Your task to perform on an android device: change the clock display to digital Image 0: 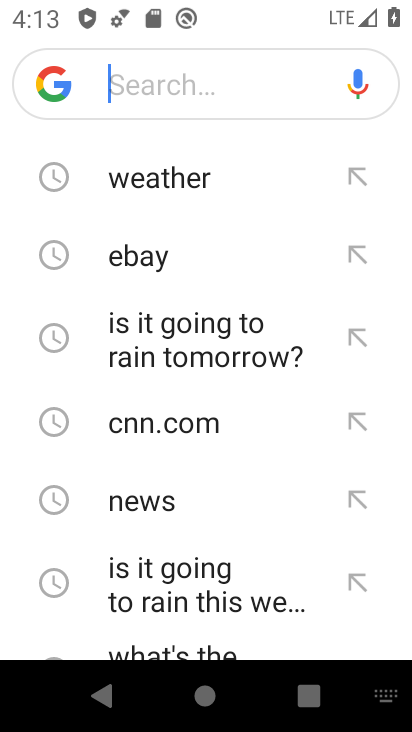
Step 0: press back button
Your task to perform on an android device: change the clock display to digital Image 1: 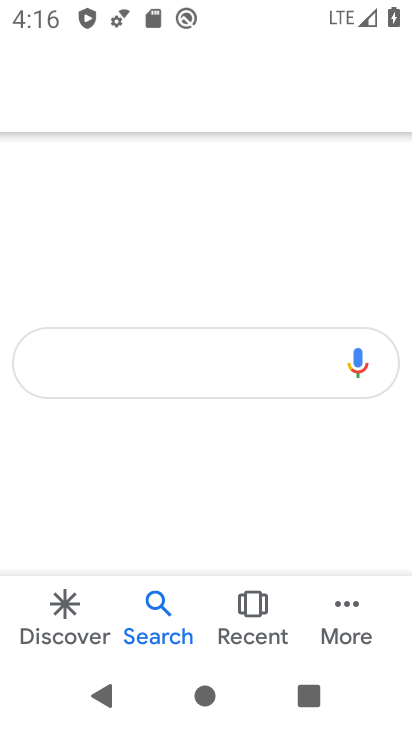
Step 1: press back button
Your task to perform on an android device: change the clock display to digital Image 2: 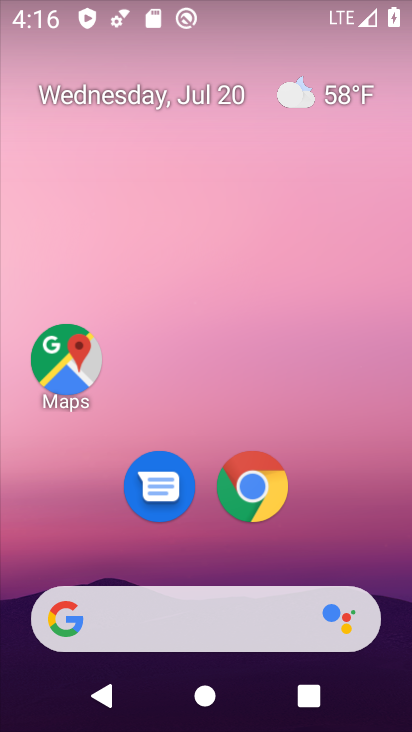
Step 2: drag from (160, 544) to (219, 0)
Your task to perform on an android device: change the clock display to digital Image 3: 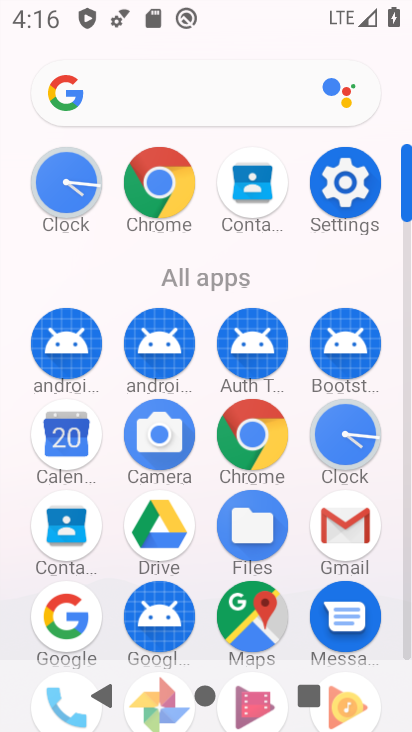
Step 3: click (341, 436)
Your task to perform on an android device: change the clock display to digital Image 4: 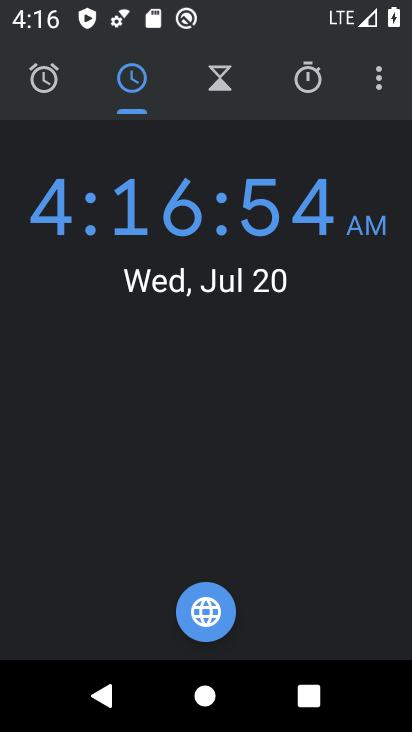
Step 4: click (380, 70)
Your task to perform on an android device: change the clock display to digital Image 5: 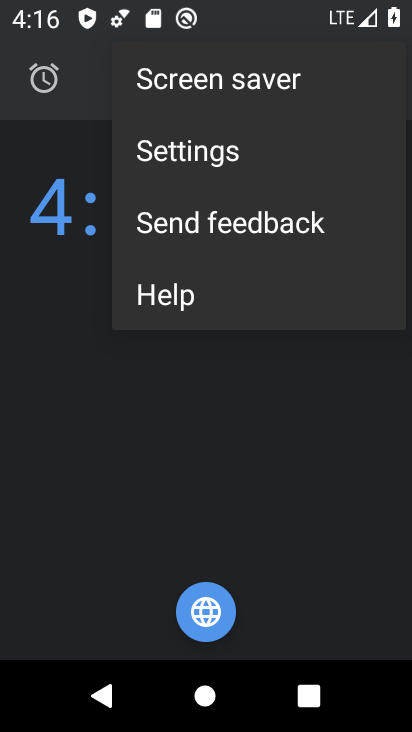
Step 5: click (242, 153)
Your task to perform on an android device: change the clock display to digital Image 6: 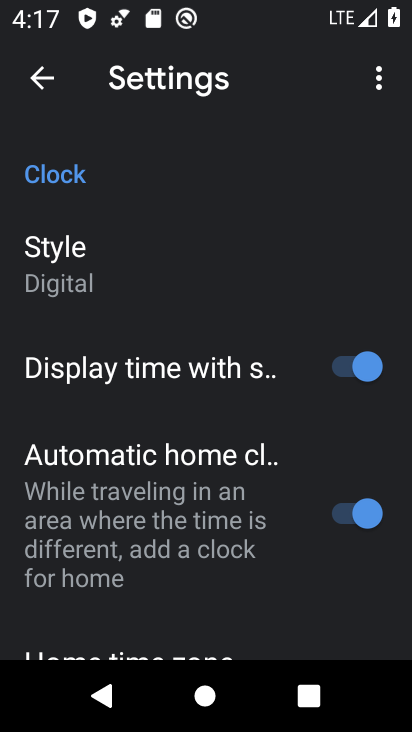
Step 6: task complete